Your task to perform on an android device: Do I have any events this weekend? Image 0: 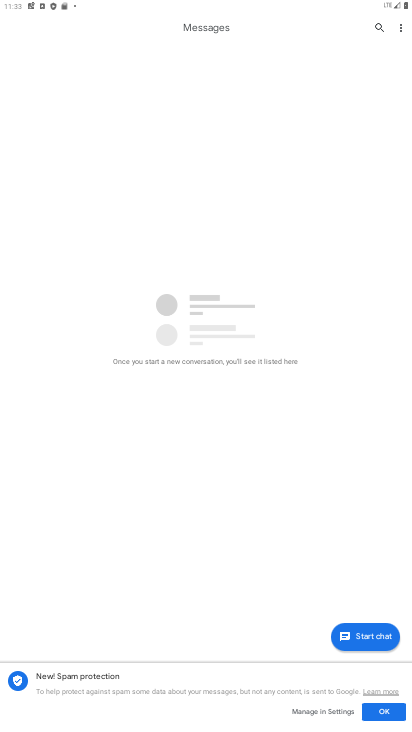
Step 0: press home button
Your task to perform on an android device: Do I have any events this weekend? Image 1: 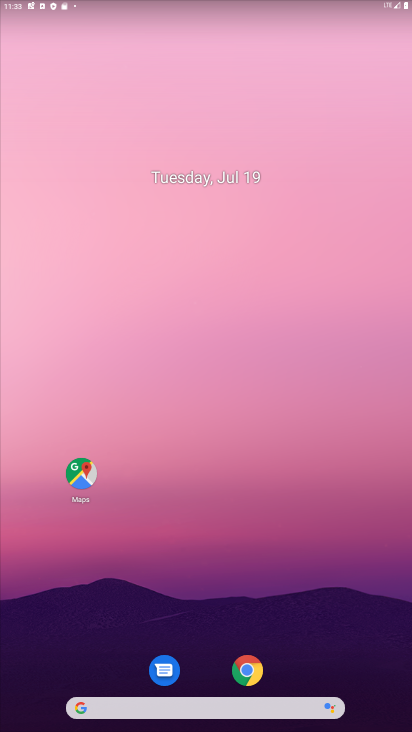
Step 1: drag from (24, 718) to (294, 74)
Your task to perform on an android device: Do I have any events this weekend? Image 2: 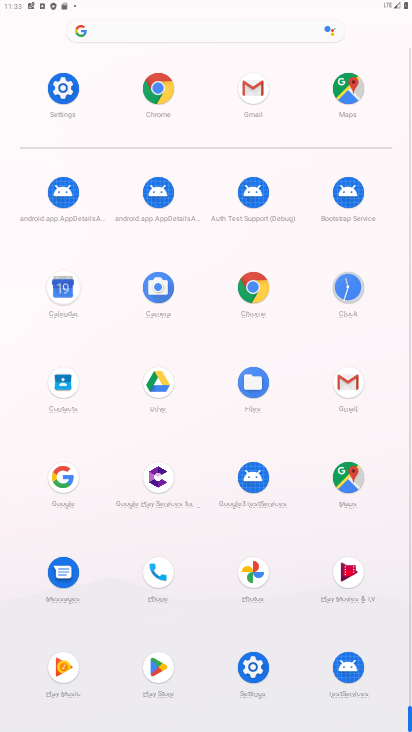
Step 2: click (63, 294)
Your task to perform on an android device: Do I have any events this weekend? Image 3: 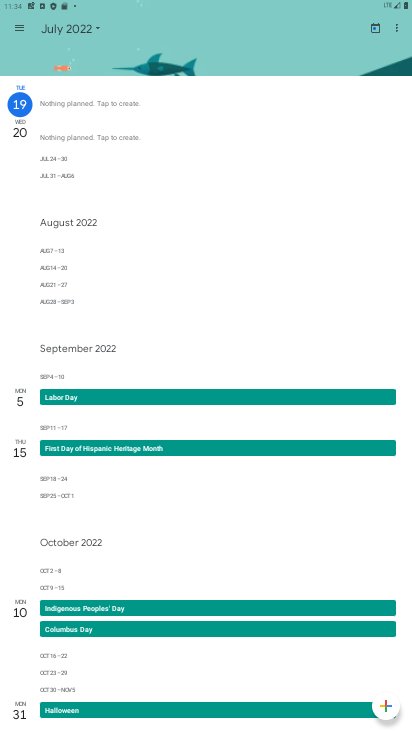
Step 3: task complete